Your task to perform on an android device: Check the news Image 0: 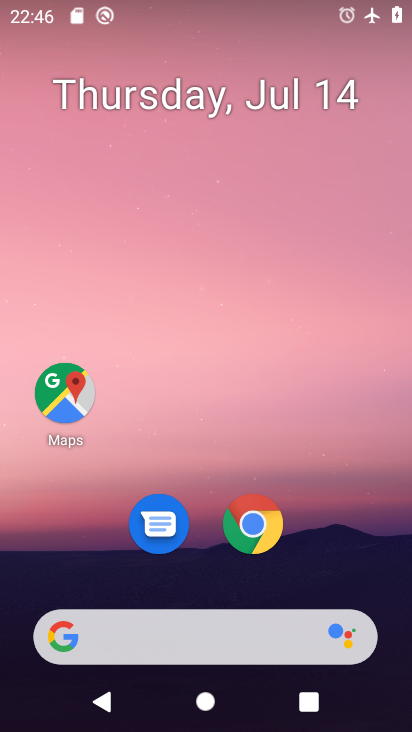
Step 0: click (225, 635)
Your task to perform on an android device: Check the news Image 1: 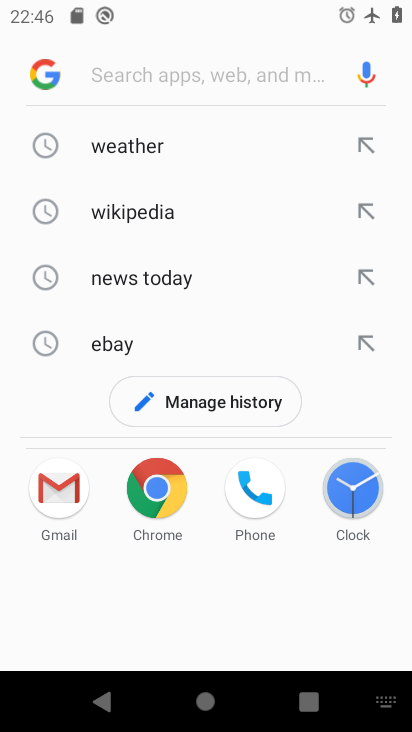
Step 1: click (152, 276)
Your task to perform on an android device: Check the news Image 2: 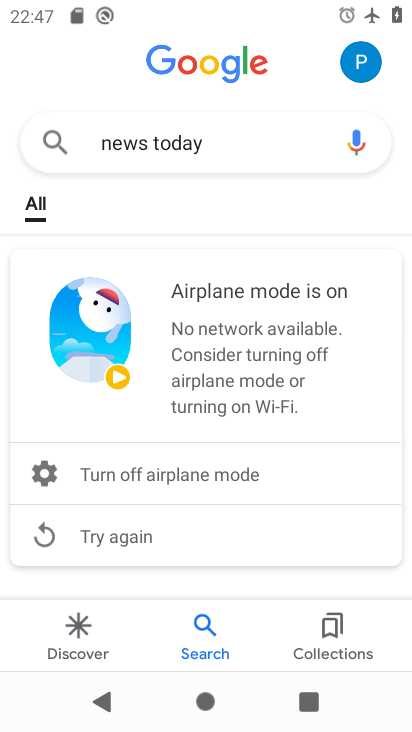
Step 2: task complete